Your task to perform on an android device: check battery use Image 0: 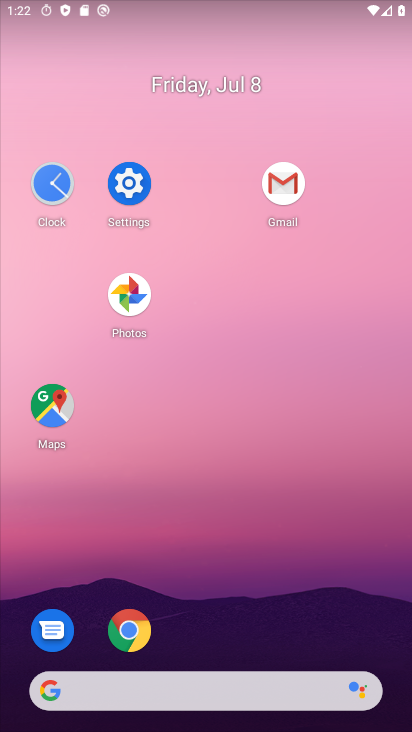
Step 0: click (136, 183)
Your task to perform on an android device: check battery use Image 1: 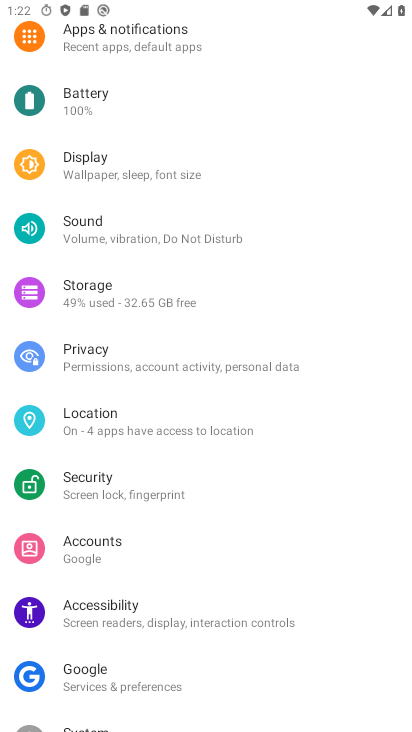
Step 1: click (227, 99)
Your task to perform on an android device: check battery use Image 2: 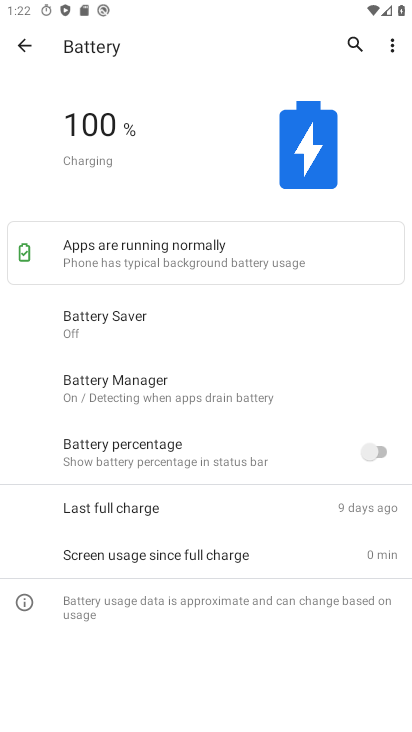
Step 2: click (393, 41)
Your task to perform on an android device: check battery use Image 3: 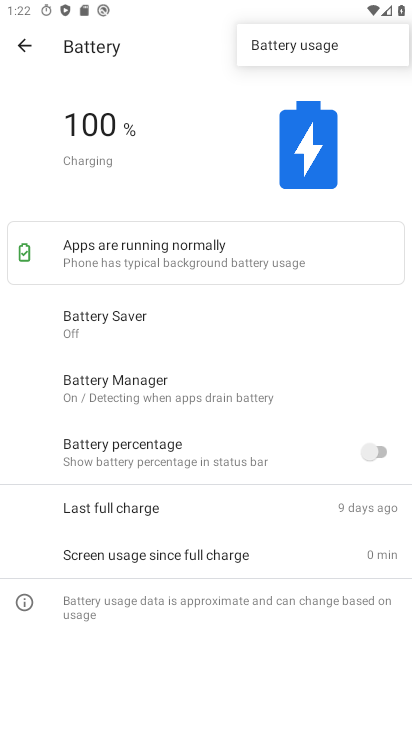
Step 3: click (318, 46)
Your task to perform on an android device: check battery use Image 4: 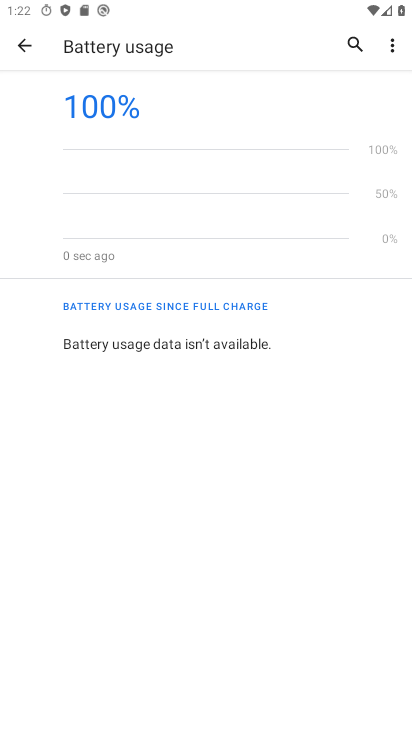
Step 4: task complete